Your task to perform on an android device: Open display settings Image 0: 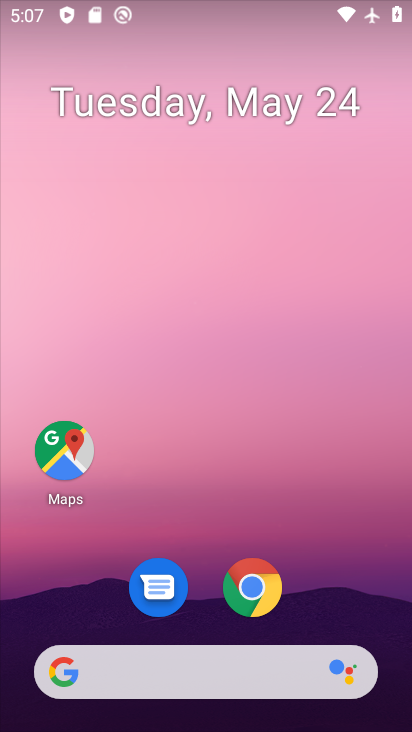
Step 0: drag from (341, 593) to (193, 9)
Your task to perform on an android device: Open display settings Image 1: 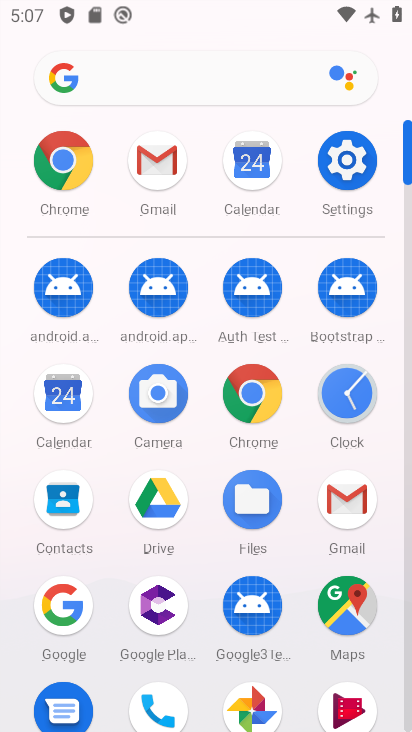
Step 1: click (360, 160)
Your task to perform on an android device: Open display settings Image 2: 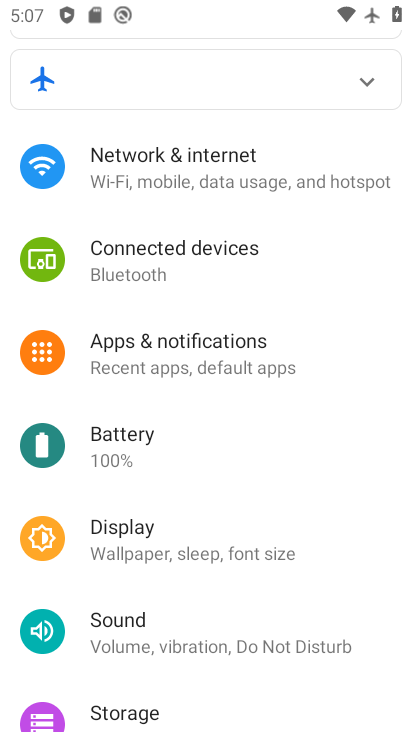
Step 2: click (227, 532)
Your task to perform on an android device: Open display settings Image 3: 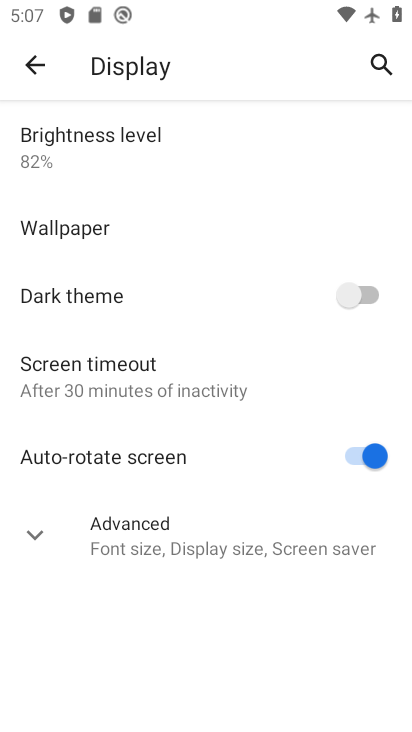
Step 3: task complete